Your task to perform on an android device: Open sound settings Image 0: 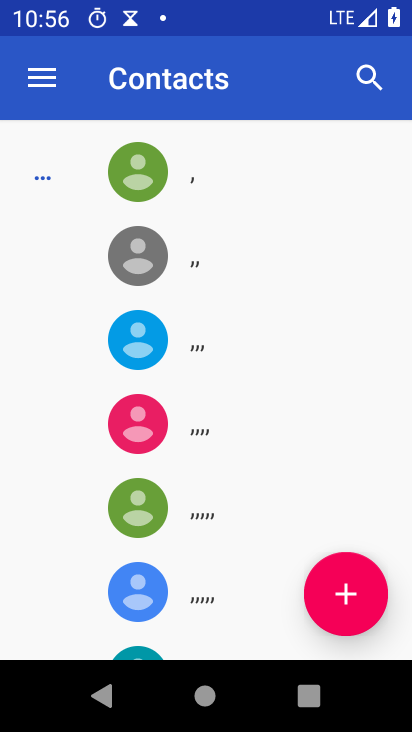
Step 0: press home button
Your task to perform on an android device: Open sound settings Image 1: 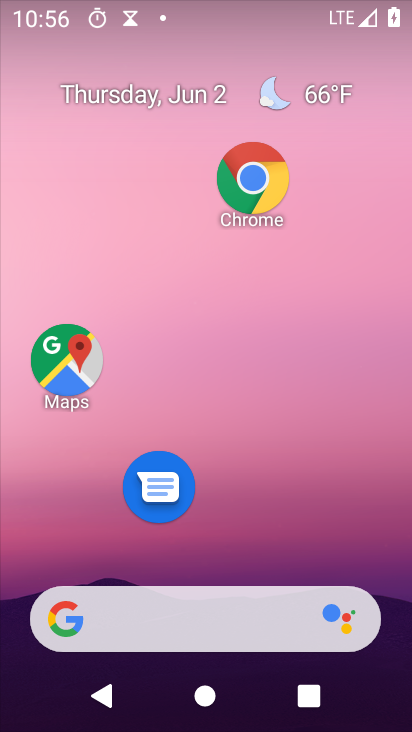
Step 1: drag from (240, 724) to (237, 105)
Your task to perform on an android device: Open sound settings Image 2: 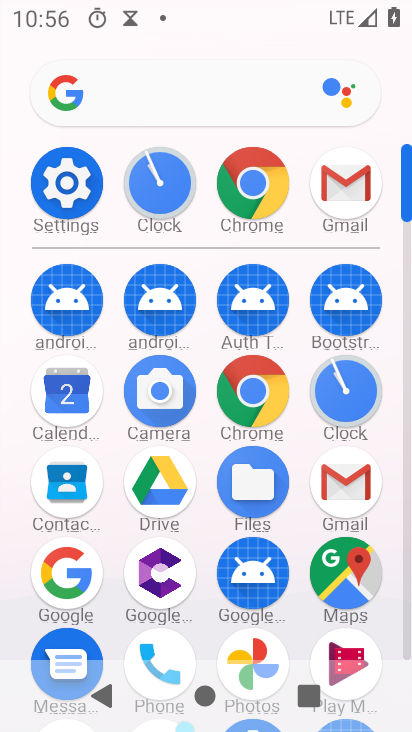
Step 2: click (44, 186)
Your task to perform on an android device: Open sound settings Image 3: 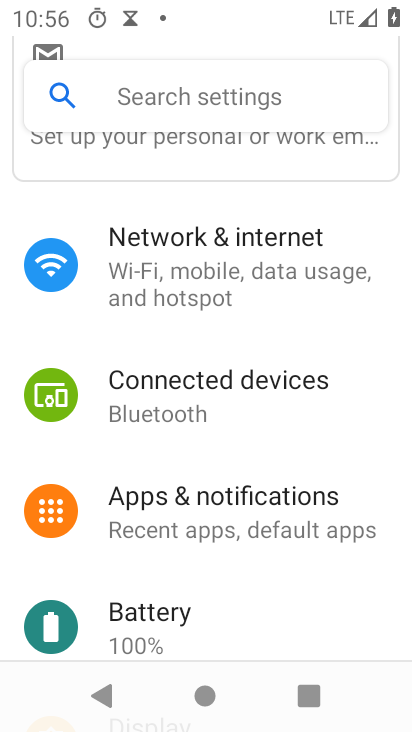
Step 3: drag from (226, 640) to (219, 187)
Your task to perform on an android device: Open sound settings Image 4: 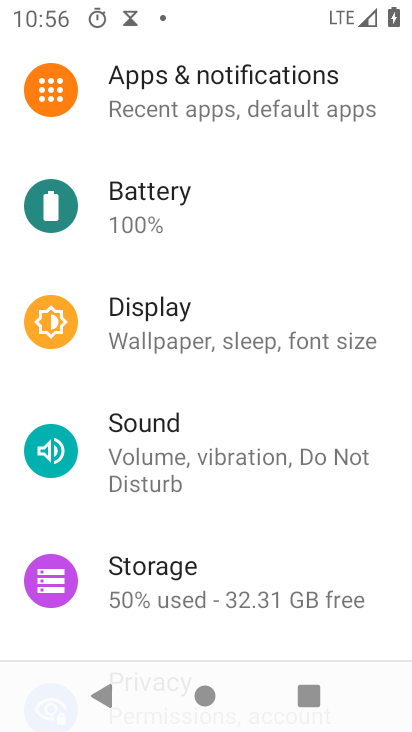
Step 4: click (175, 452)
Your task to perform on an android device: Open sound settings Image 5: 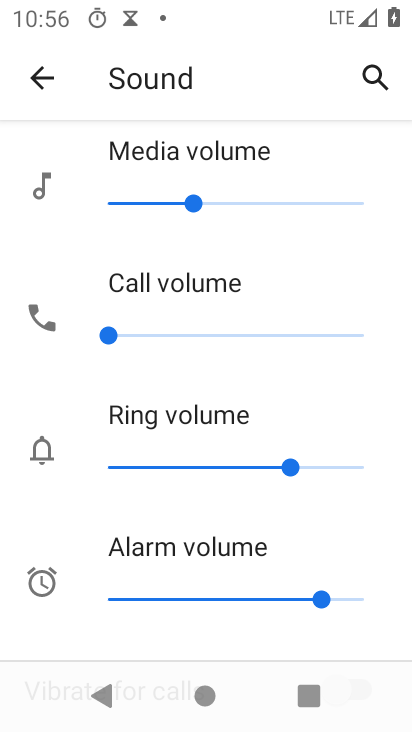
Step 5: task complete